Your task to perform on an android device: What's on my calendar tomorrow? Image 0: 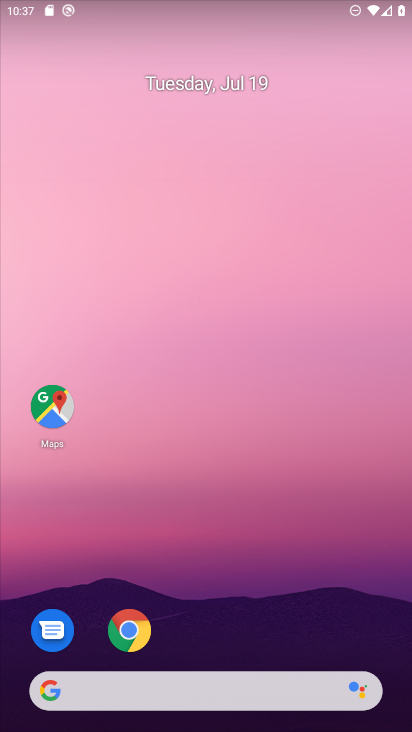
Step 0: drag from (214, 585) to (171, 198)
Your task to perform on an android device: What's on my calendar tomorrow? Image 1: 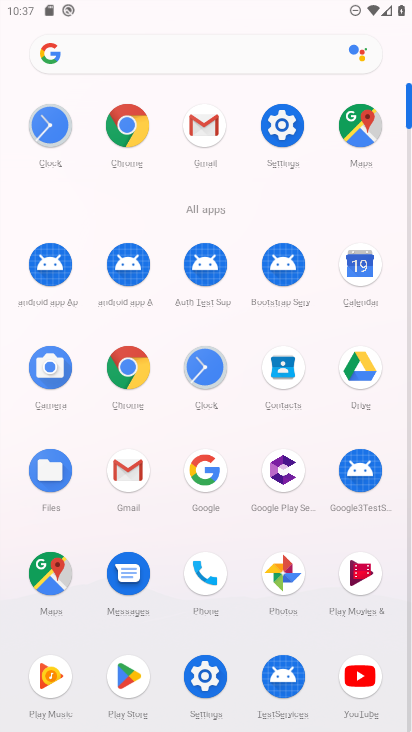
Step 1: click (362, 271)
Your task to perform on an android device: What's on my calendar tomorrow? Image 2: 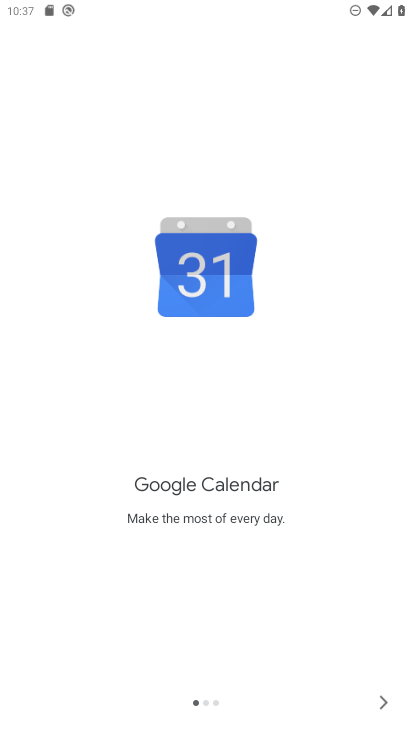
Step 2: click (384, 700)
Your task to perform on an android device: What's on my calendar tomorrow? Image 3: 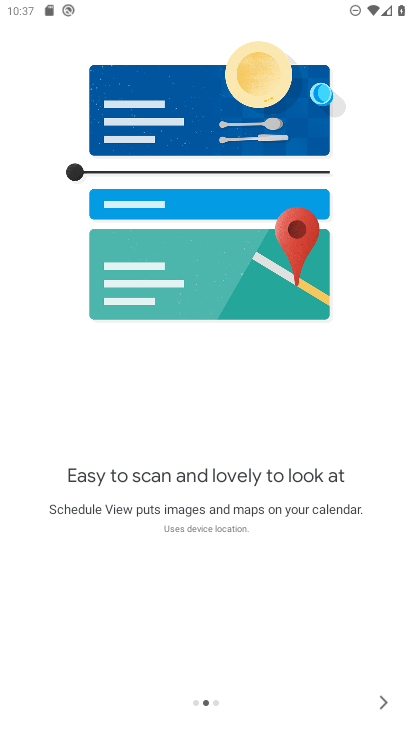
Step 3: click (384, 700)
Your task to perform on an android device: What's on my calendar tomorrow? Image 4: 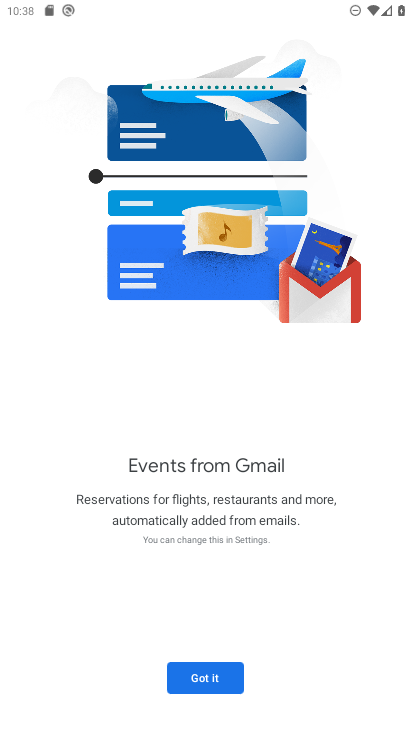
Step 4: click (220, 676)
Your task to perform on an android device: What's on my calendar tomorrow? Image 5: 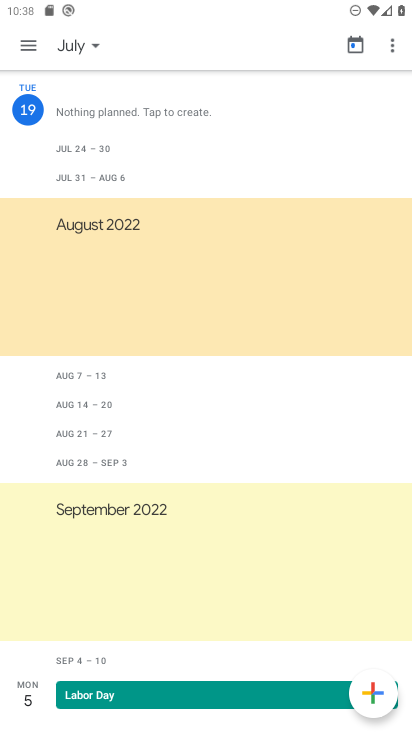
Step 5: click (88, 43)
Your task to perform on an android device: What's on my calendar tomorrow? Image 6: 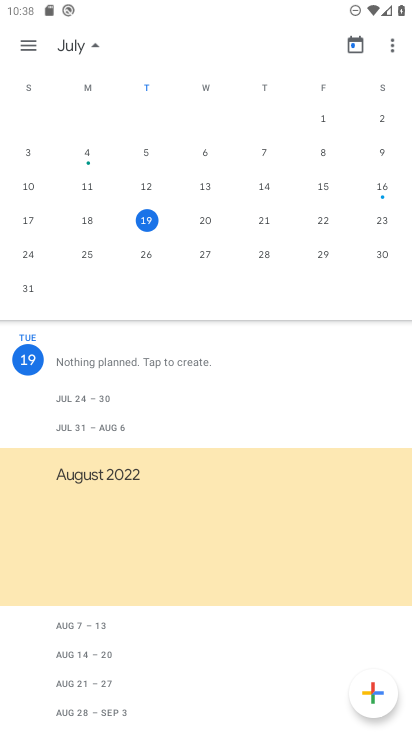
Step 6: click (197, 228)
Your task to perform on an android device: What's on my calendar tomorrow? Image 7: 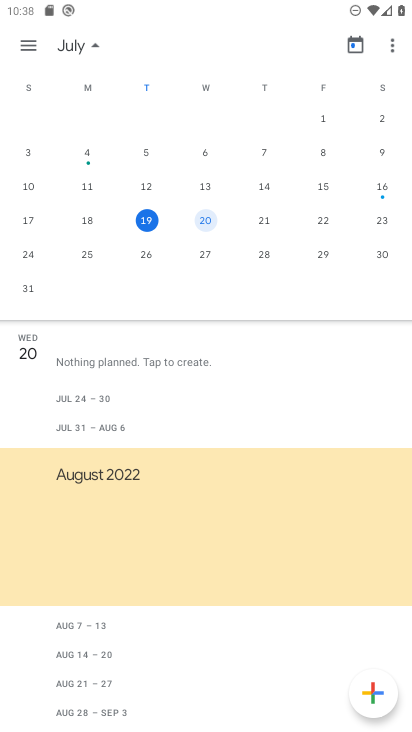
Step 7: task complete